Your task to perform on an android device: Open calendar and show me the second week of next month Image 0: 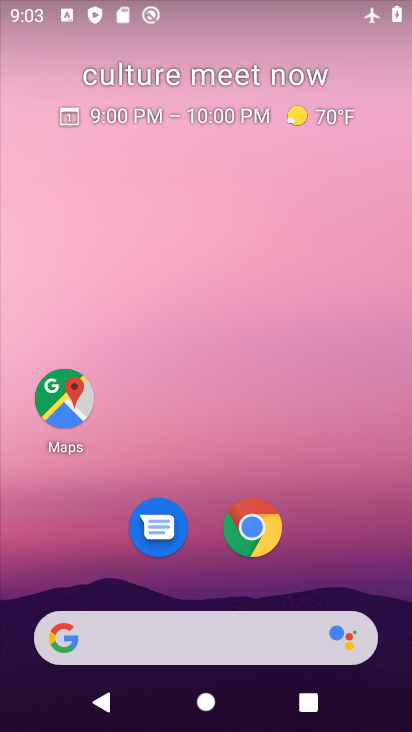
Step 0: drag from (278, 589) to (274, 199)
Your task to perform on an android device: Open calendar and show me the second week of next month Image 1: 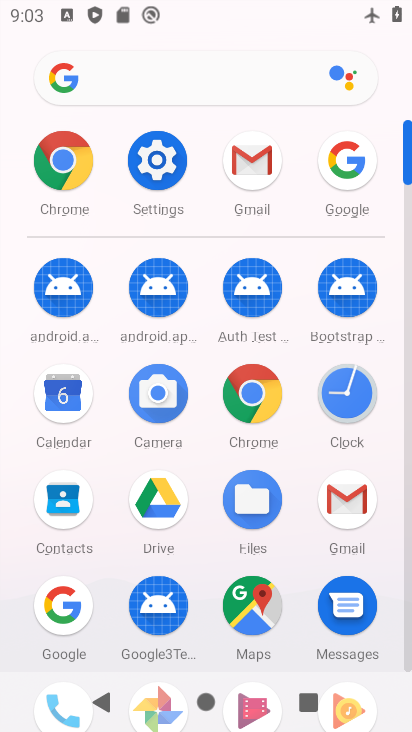
Step 1: click (63, 422)
Your task to perform on an android device: Open calendar and show me the second week of next month Image 2: 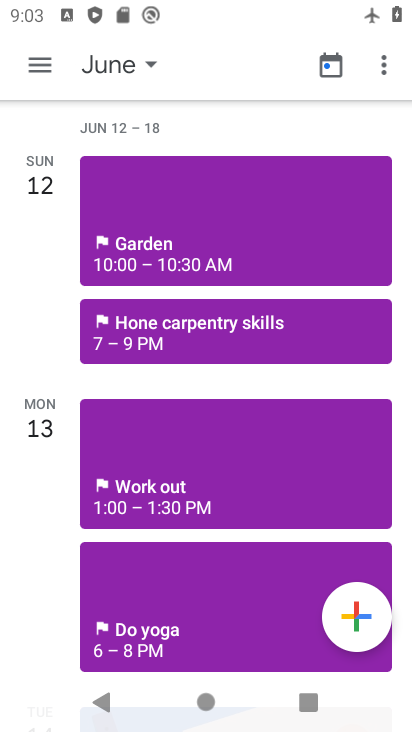
Step 2: click (147, 68)
Your task to perform on an android device: Open calendar and show me the second week of next month Image 3: 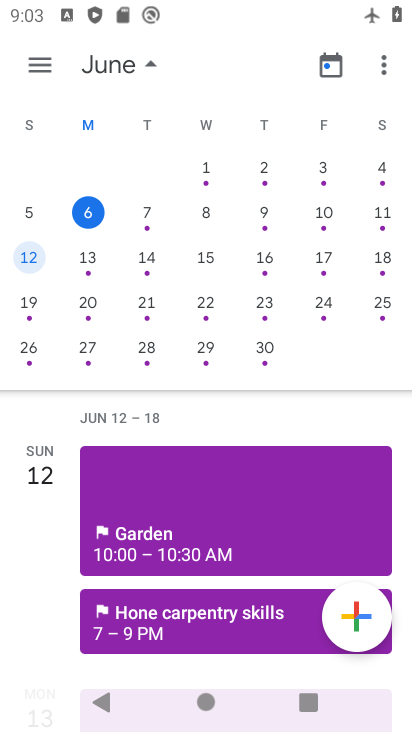
Step 3: drag from (349, 285) to (8, 255)
Your task to perform on an android device: Open calendar and show me the second week of next month Image 4: 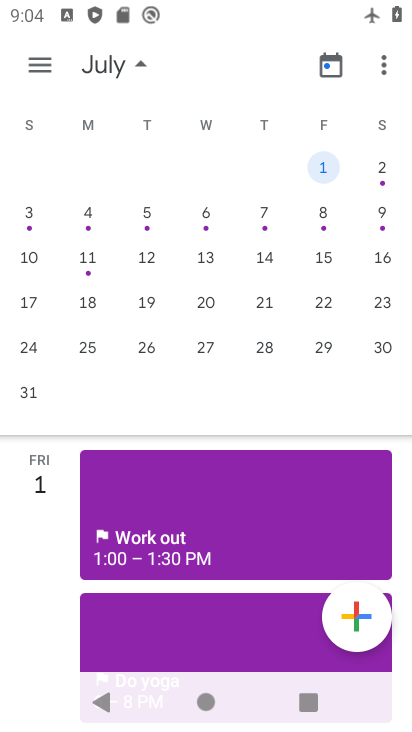
Step 4: click (36, 227)
Your task to perform on an android device: Open calendar and show me the second week of next month Image 5: 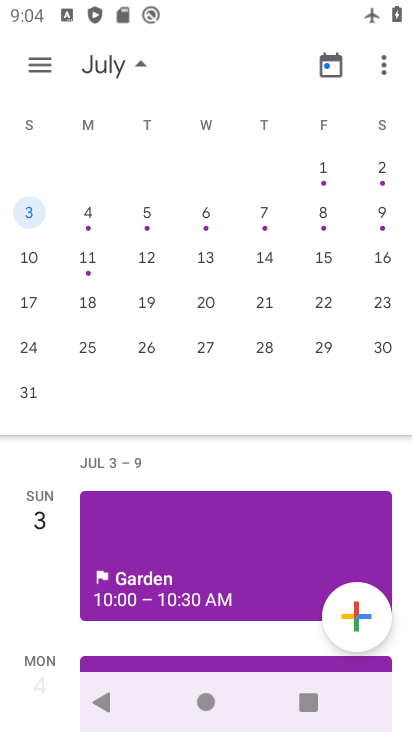
Step 5: task complete